Your task to perform on an android device: check battery use Image 0: 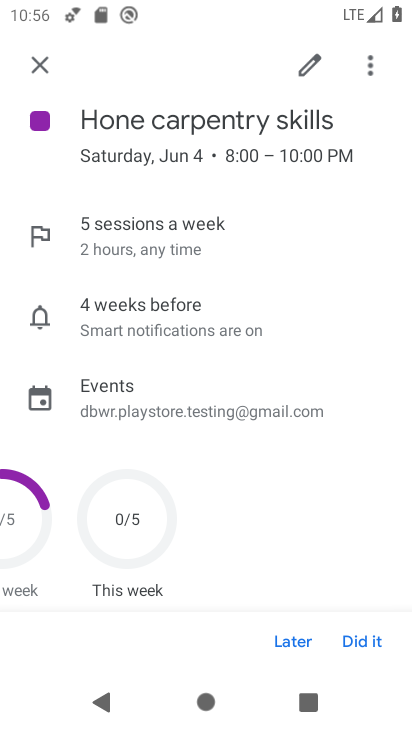
Step 0: press home button
Your task to perform on an android device: check battery use Image 1: 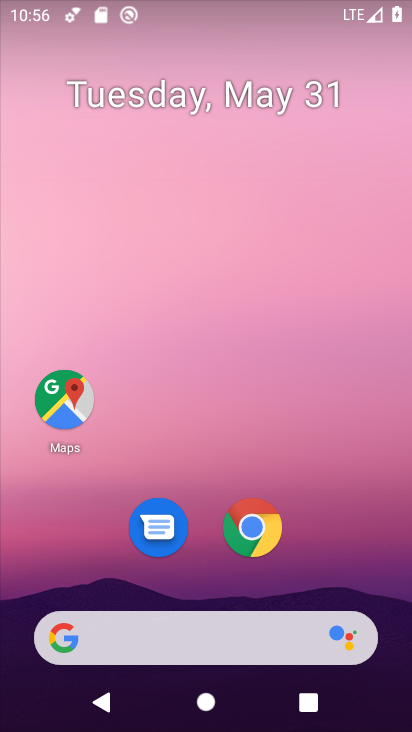
Step 1: drag from (336, 557) to (311, 12)
Your task to perform on an android device: check battery use Image 2: 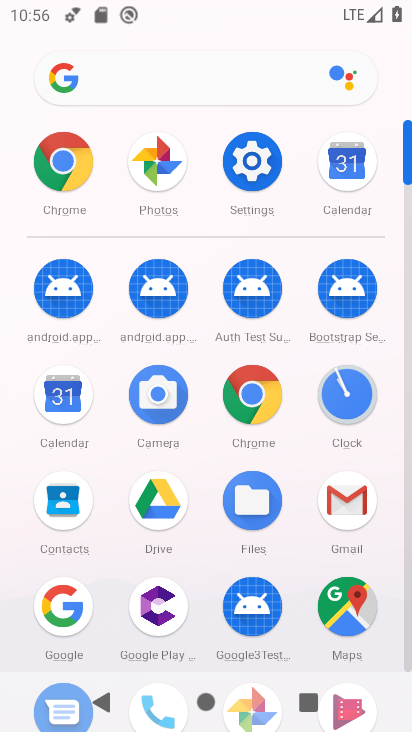
Step 2: click (252, 171)
Your task to perform on an android device: check battery use Image 3: 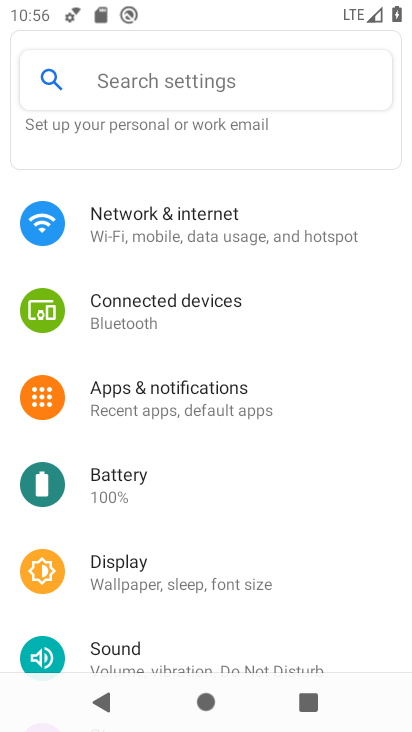
Step 3: click (113, 498)
Your task to perform on an android device: check battery use Image 4: 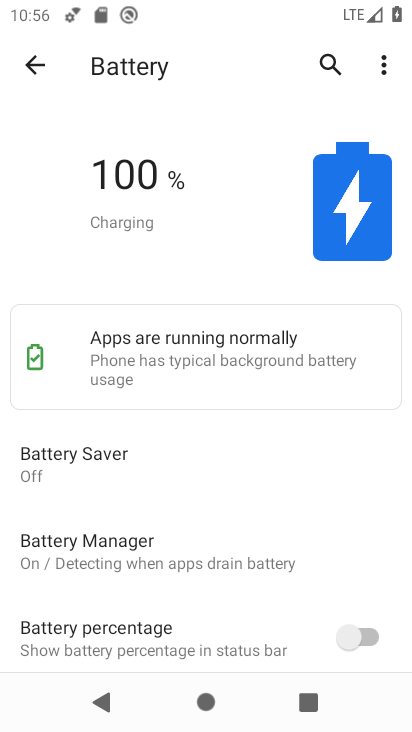
Step 4: click (380, 67)
Your task to perform on an android device: check battery use Image 5: 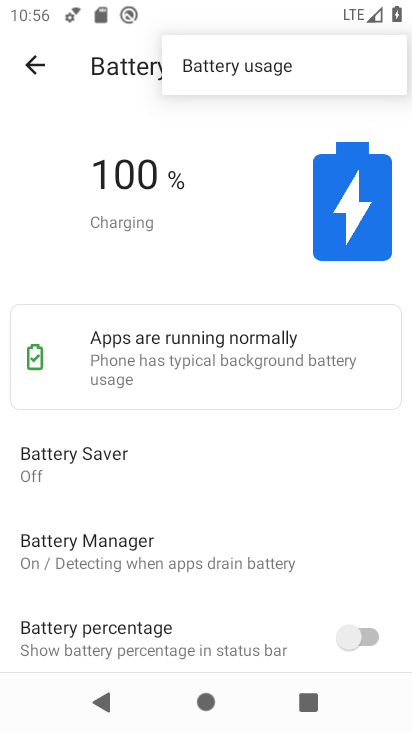
Step 5: click (237, 70)
Your task to perform on an android device: check battery use Image 6: 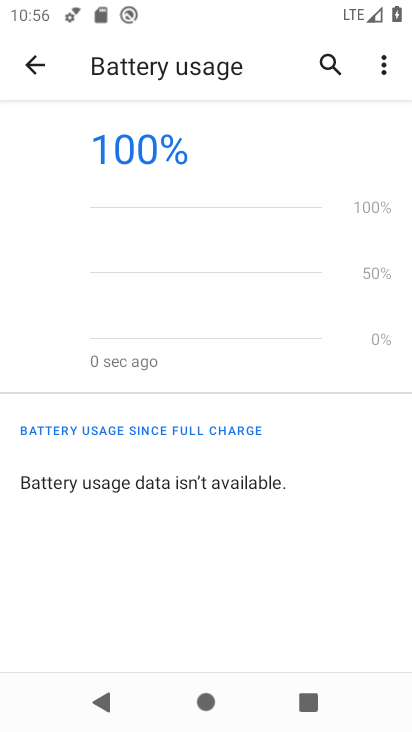
Step 6: task complete